Your task to perform on an android device: Open privacy settings Image 0: 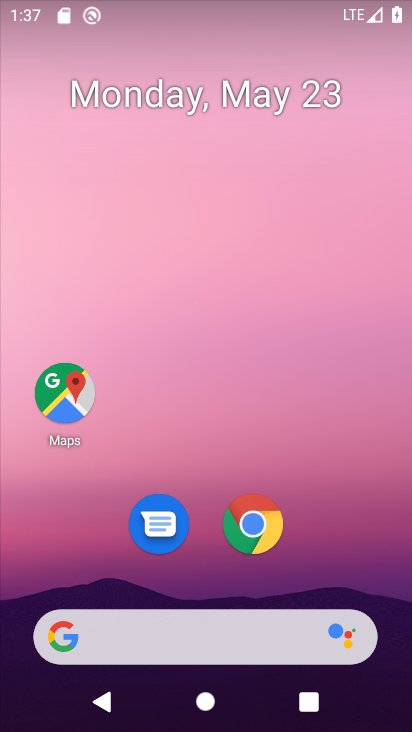
Step 0: drag from (330, 517) to (321, 59)
Your task to perform on an android device: Open privacy settings Image 1: 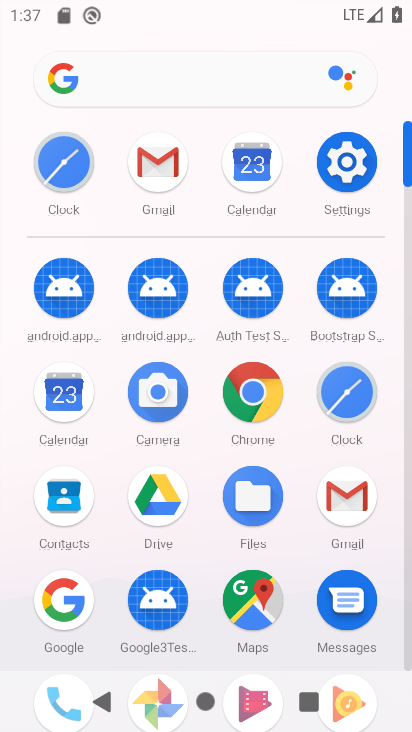
Step 1: click (349, 148)
Your task to perform on an android device: Open privacy settings Image 2: 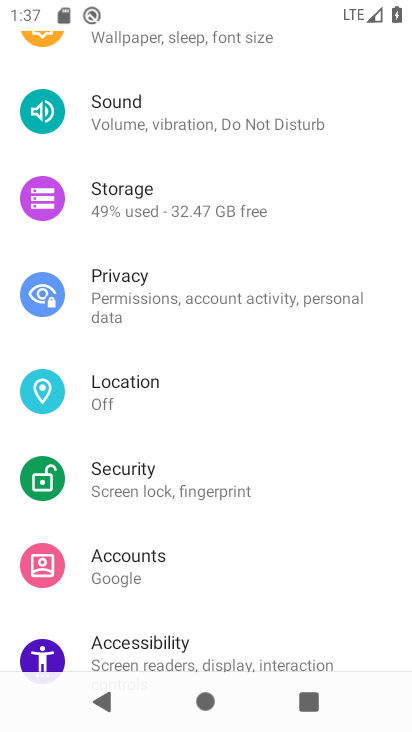
Step 2: click (299, 294)
Your task to perform on an android device: Open privacy settings Image 3: 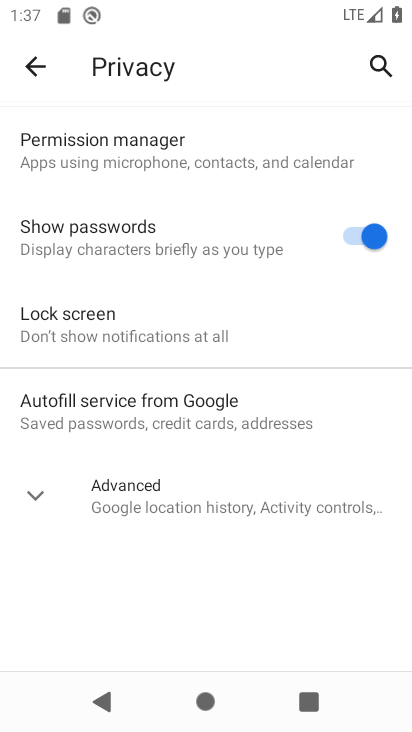
Step 3: task complete